Your task to perform on an android device: toggle notification dots Image 0: 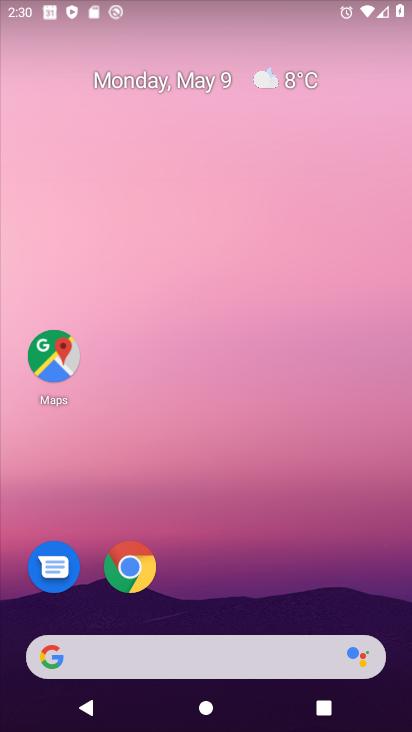
Step 0: drag from (255, 486) to (274, 267)
Your task to perform on an android device: toggle notification dots Image 1: 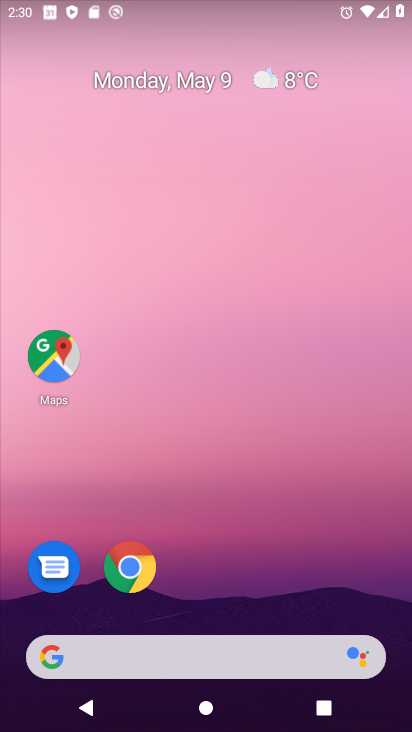
Step 1: drag from (299, 614) to (276, 252)
Your task to perform on an android device: toggle notification dots Image 2: 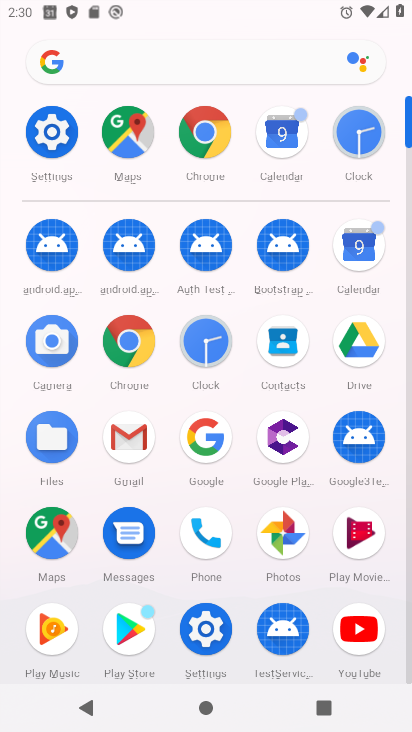
Step 2: click (16, 130)
Your task to perform on an android device: toggle notification dots Image 3: 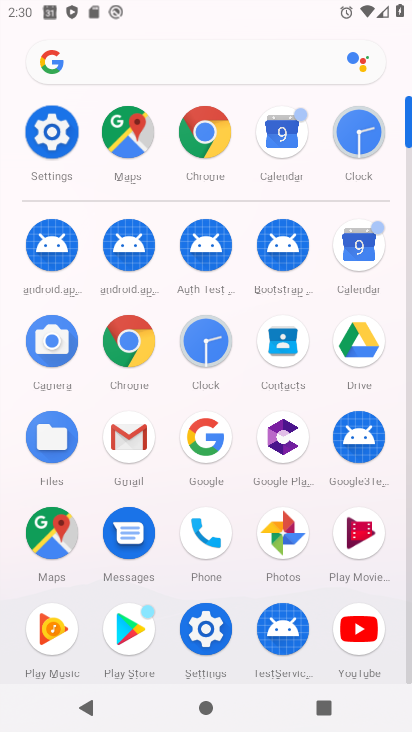
Step 3: click (28, 128)
Your task to perform on an android device: toggle notification dots Image 4: 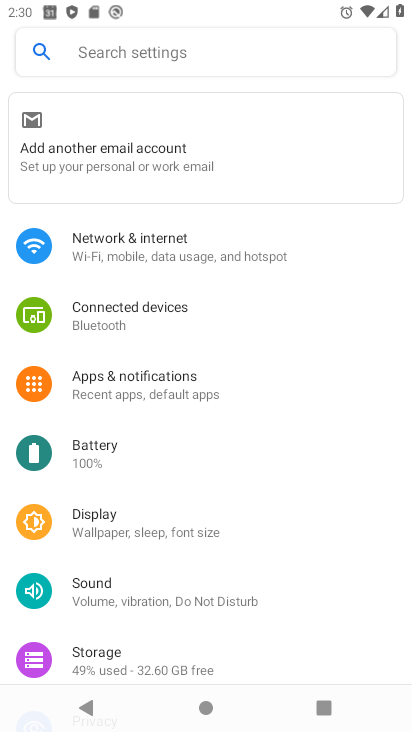
Step 4: click (191, 46)
Your task to perform on an android device: toggle notification dots Image 5: 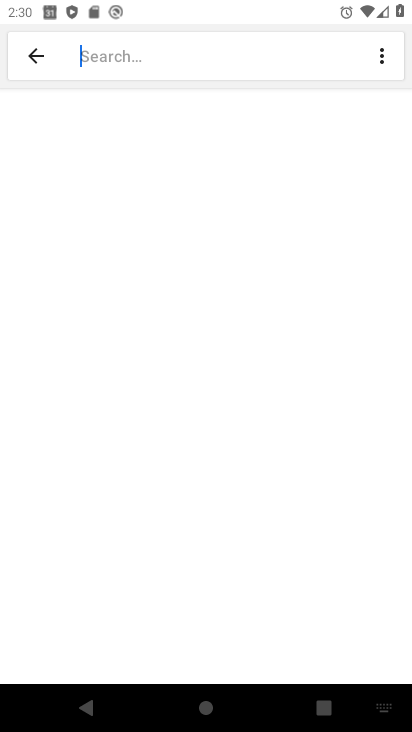
Step 5: click (201, 43)
Your task to perform on an android device: toggle notification dots Image 6: 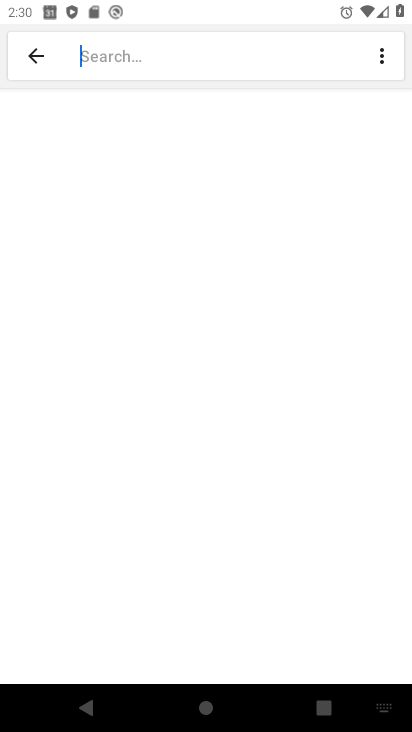
Step 6: type " notification dots"
Your task to perform on an android device: toggle notification dots Image 7: 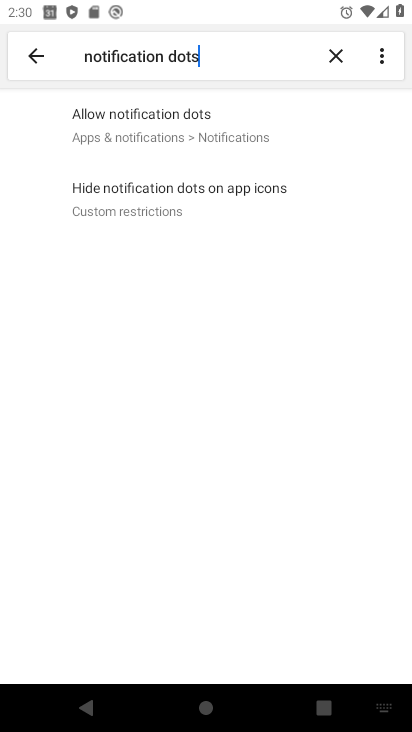
Step 7: click (225, 53)
Your task to perform on an android device: toggle notification dots Image 8: 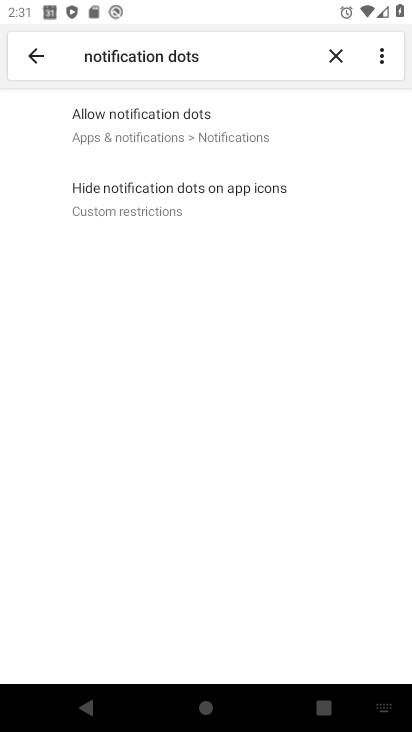
Step 8: click (213, 113)
Your task to perform on an android device: toggle notification dots Image 9: 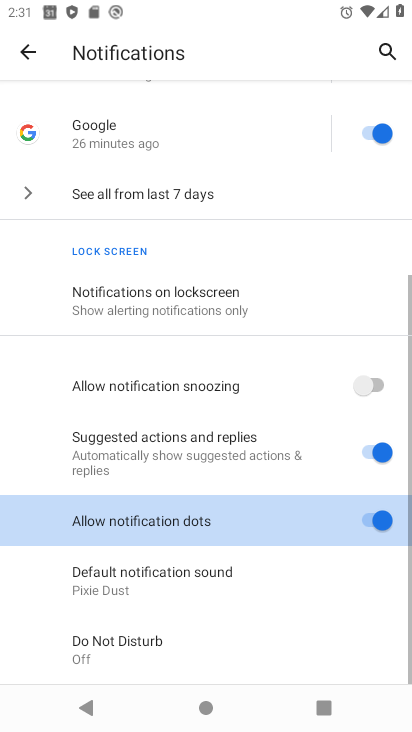
Step 9: click (365, 496)
Your task to perform on an android device: toggle notification dots Image 10: 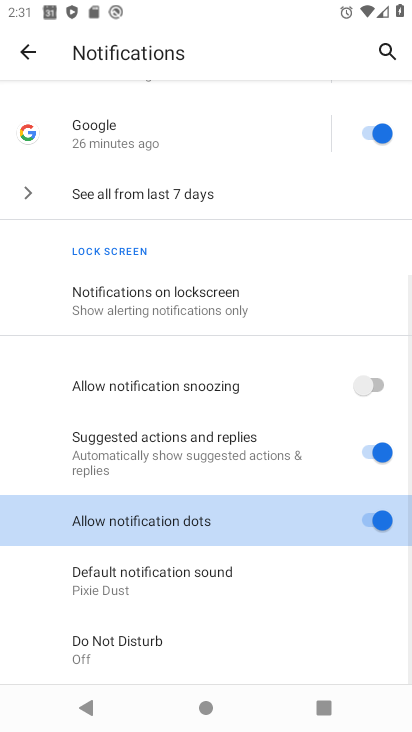
Step 10: click (365, 521)
Your task to perform on an android device: toggle notification dots Image 11: 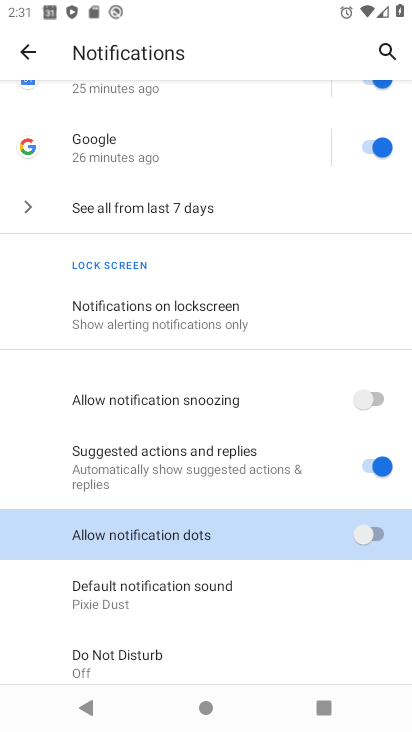
Step 11: task complete